Your task to perform on an android device: turn off wifi Image 0: 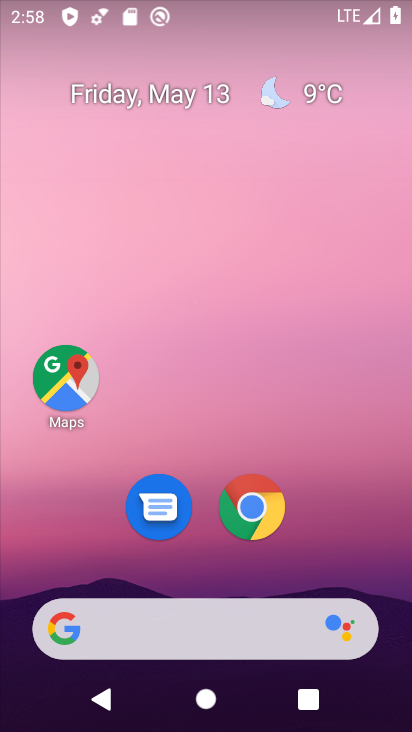
Step 0: drag from (271, 709) to (252, 138)
Your task to perform on an android device: turn off wifi Image 1: 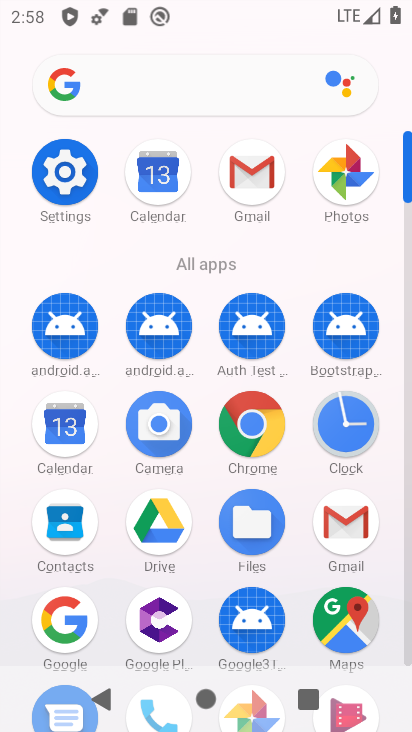
Step 1: click (80, 183)
Your task to perform on an android device: turn off wifi Image 2: 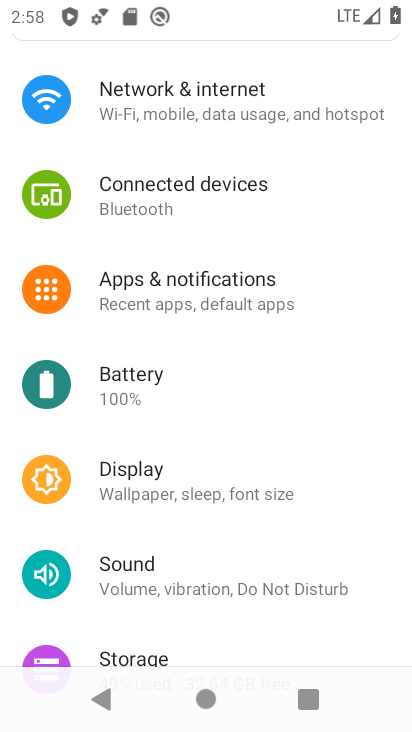
Step 2: click (252, 139)
Your task to perform on an android device: turn off wifi Image 3: 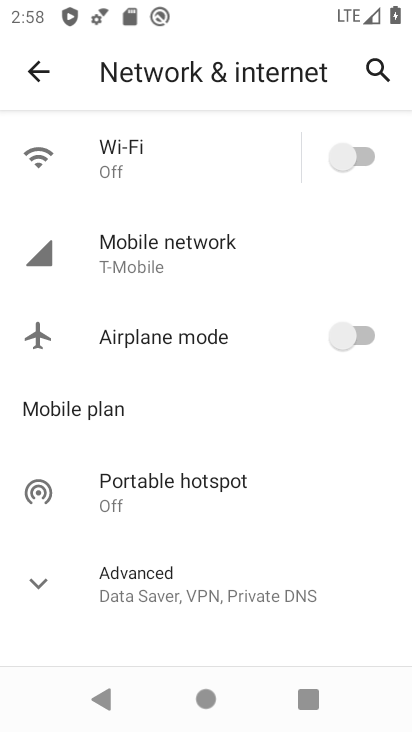
Step 3: task complete